Your task to perform on an android device: change the clock display to digital Image 0: 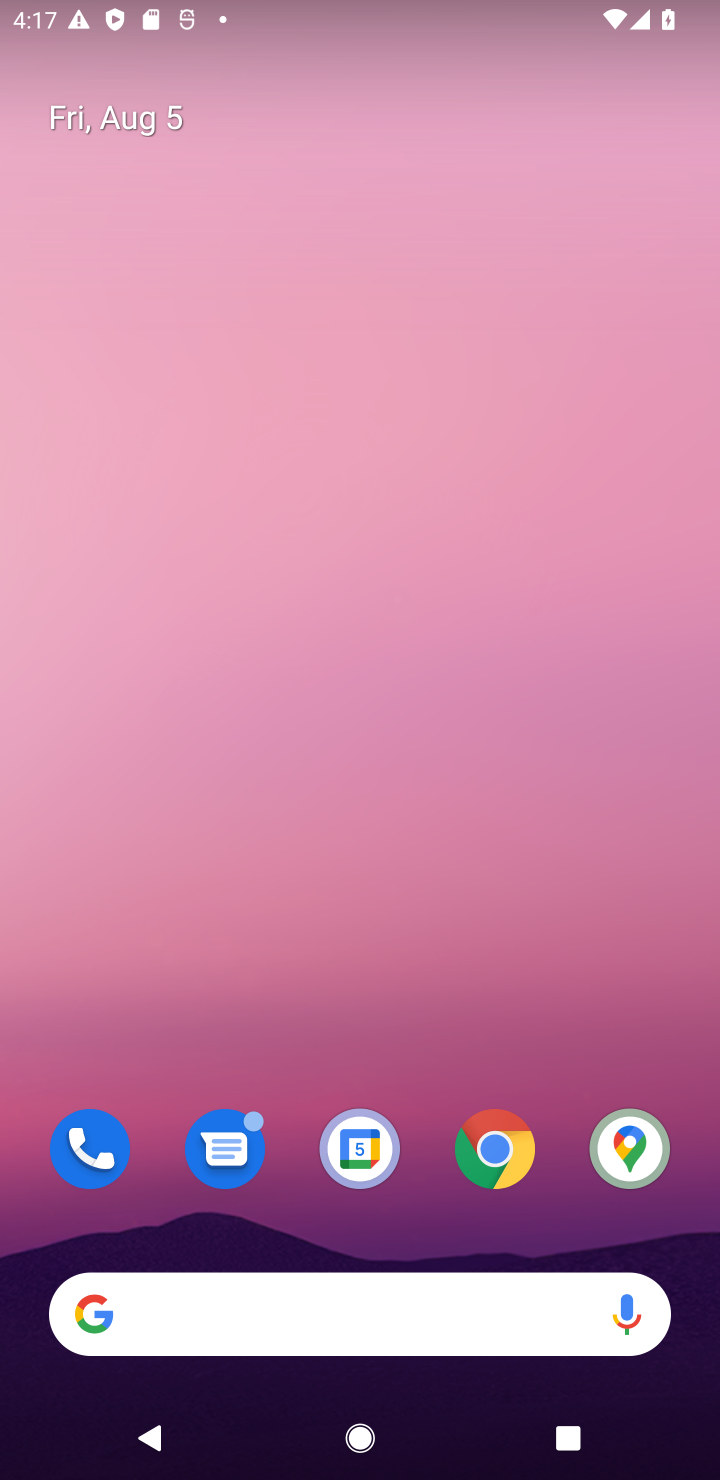
Step 0: drag from (368, 1243) to (459, 210)
Your task to perform on an android device: change the clock display to digital Image 1: 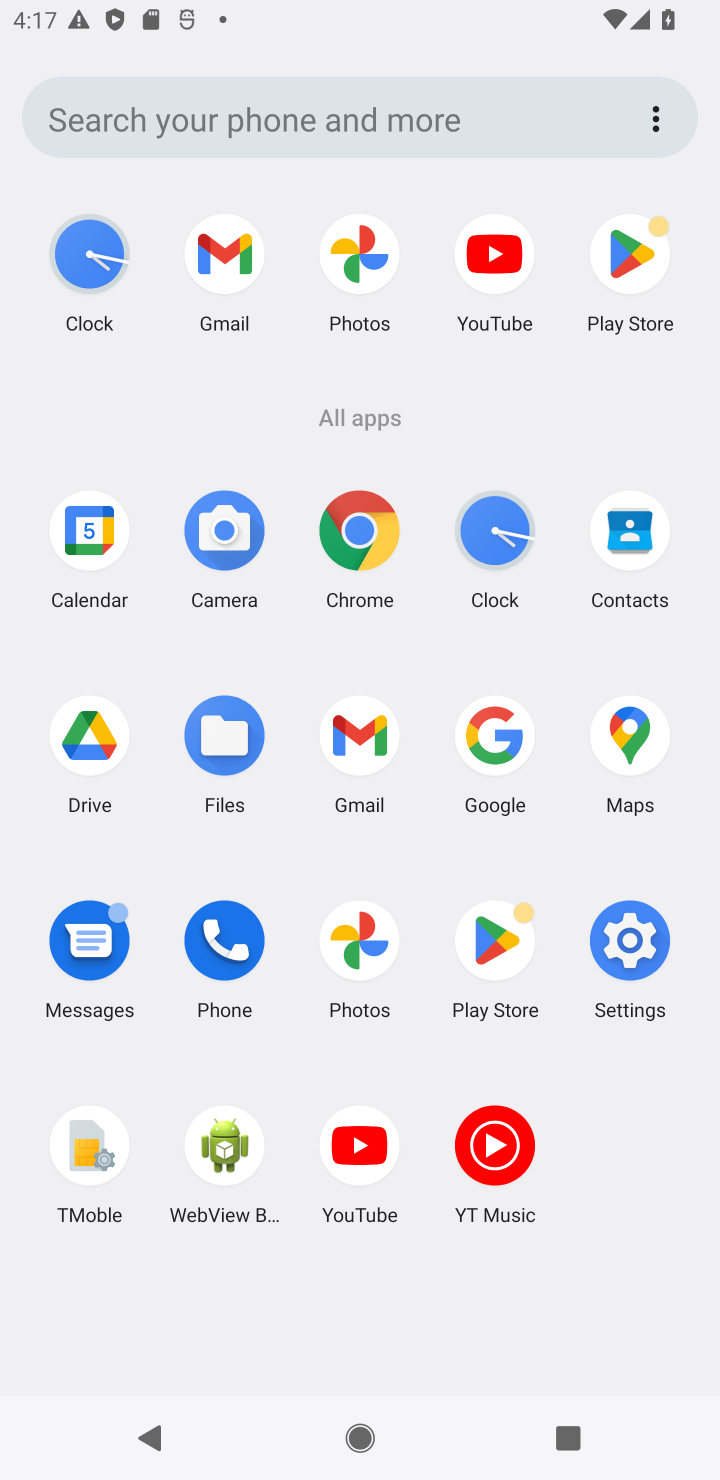
Step 1: click (506, 532)
Your task to perform on an android device: change the clock display to digital Image 2: 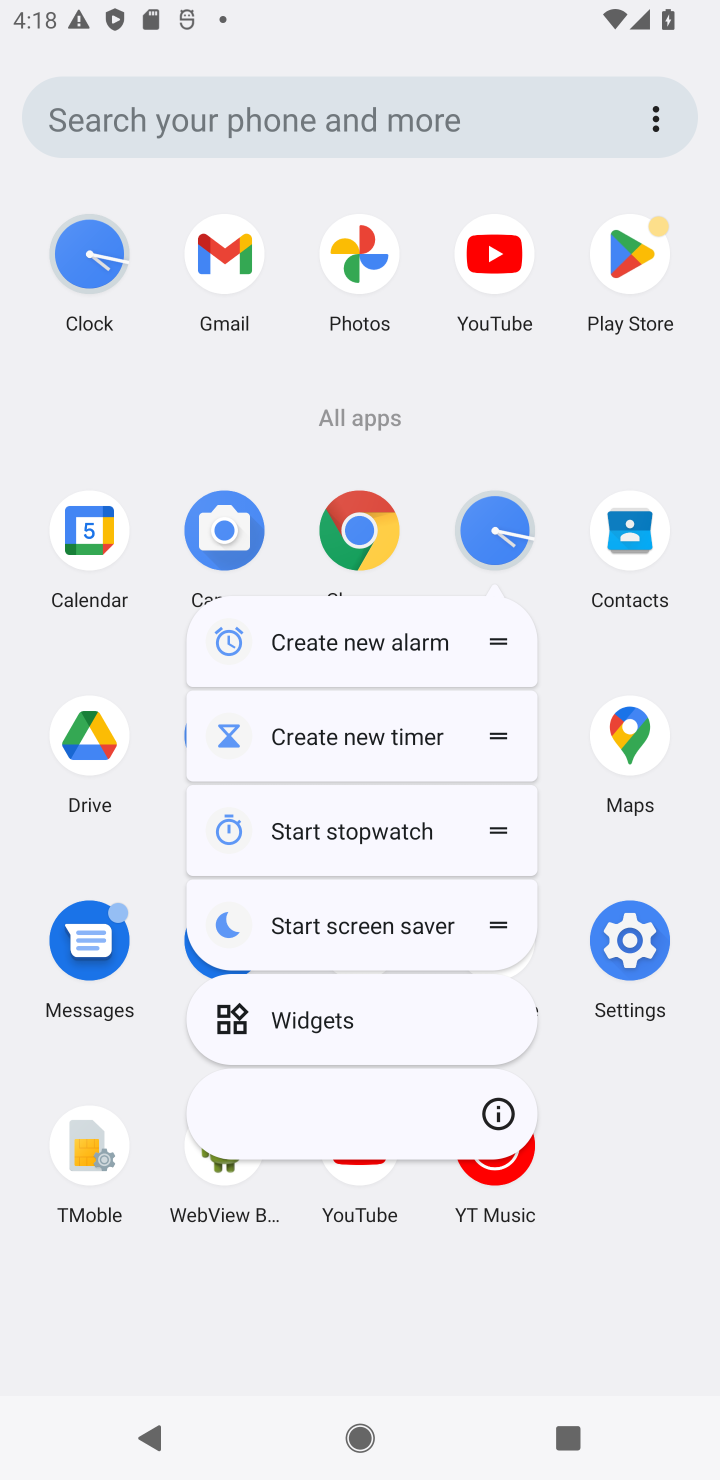
Step 2: click (482, 527)
Your task to perform on an android device: change the clock display to digital Image 3: 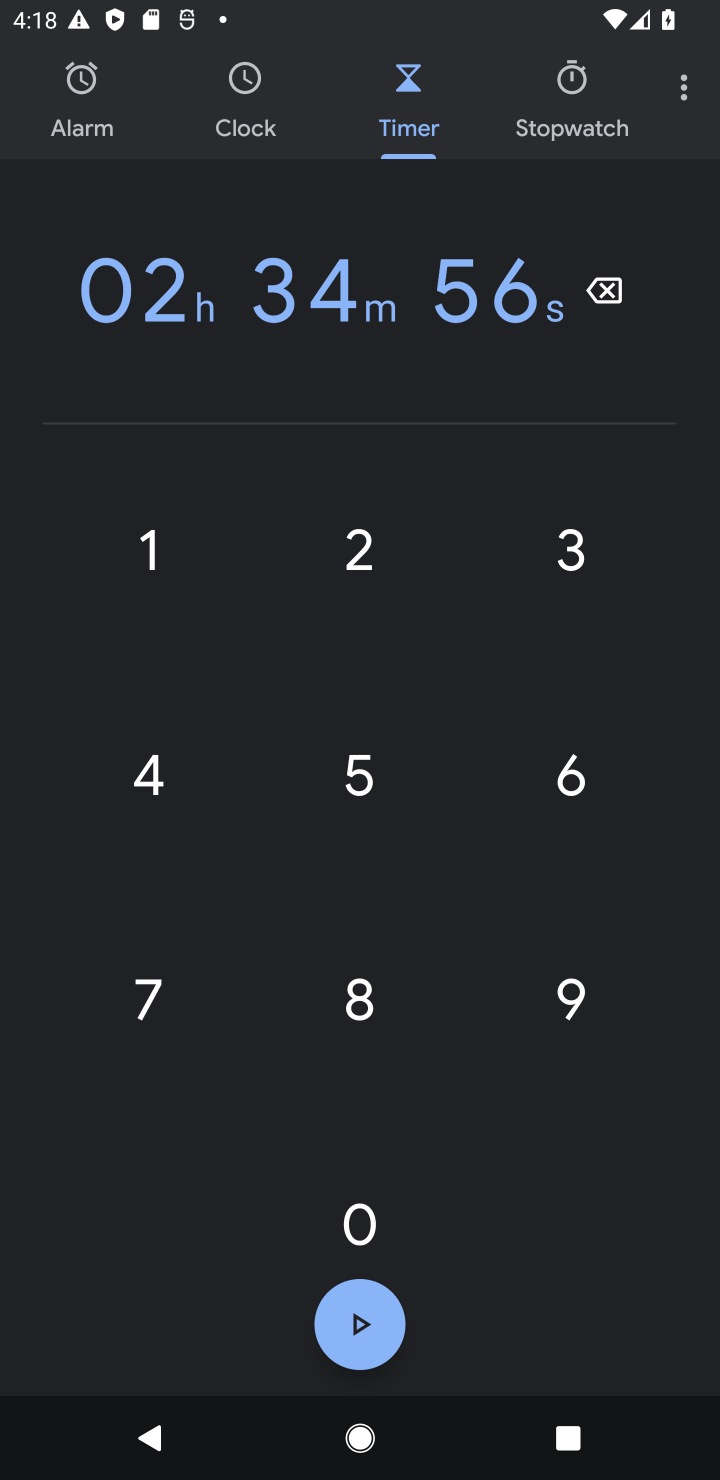
Step 3: click (680, 77)
Your task to perform on an android device: change the clock display to digital Image 4: 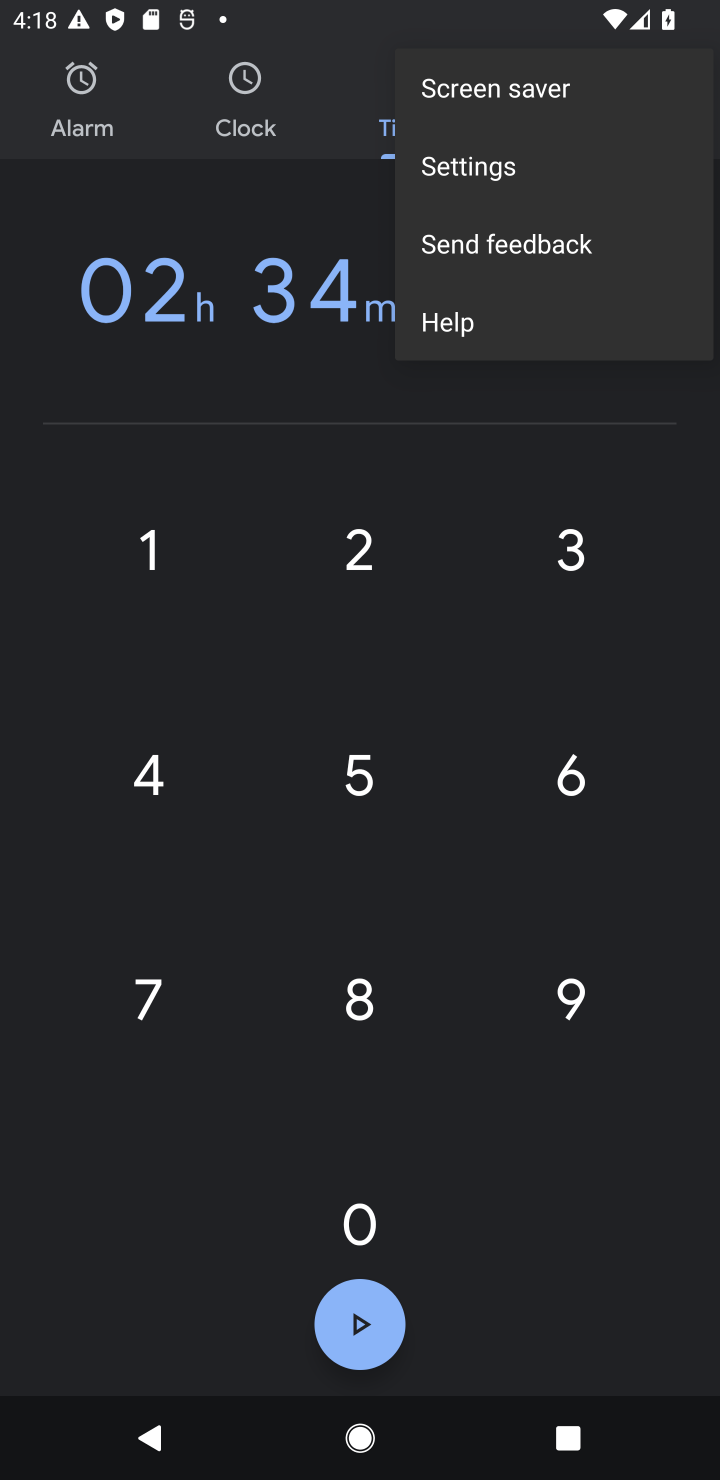
Step 4: click (533, 157)
Your task to perform on an android device: change the clock display to digital Image 5: 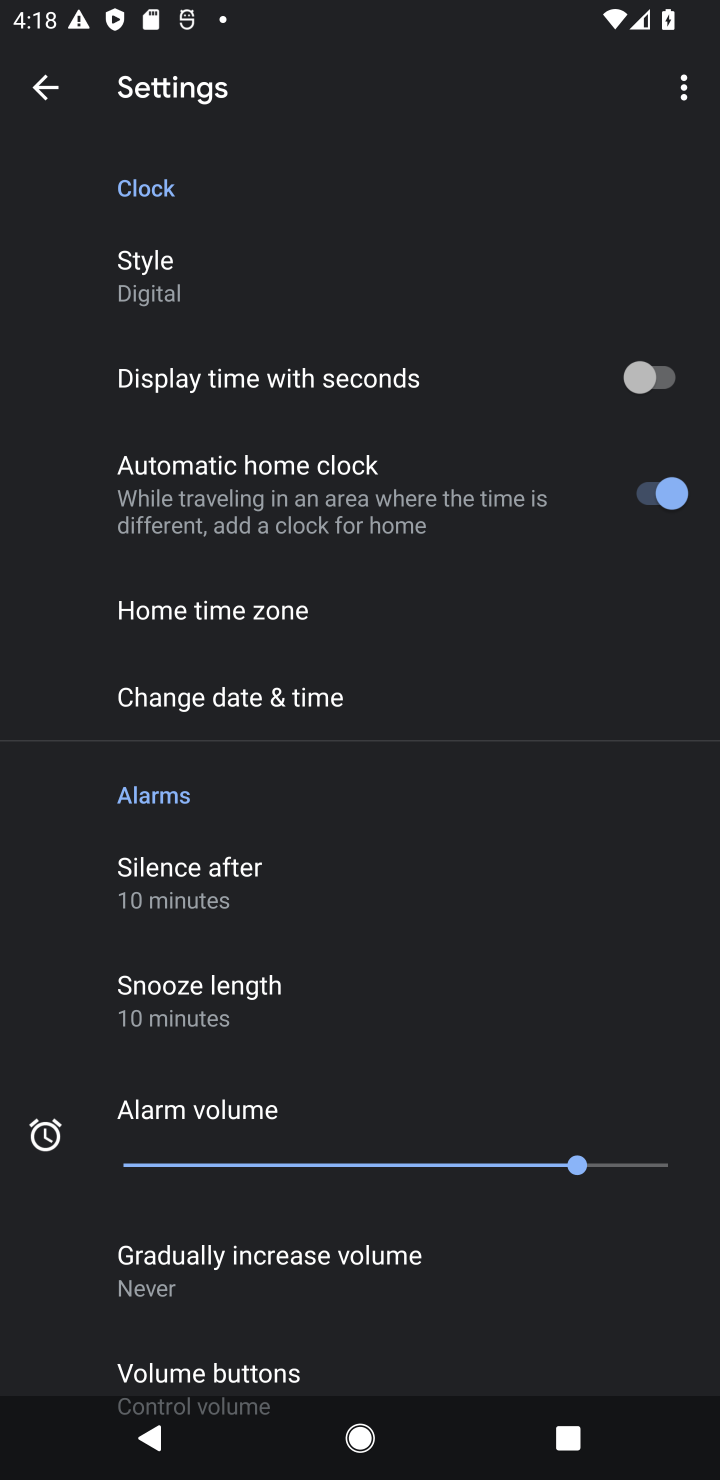
Step 5: task complete